Your task to perform on an android device: delete the emails in spam in the gmail app Image 0: 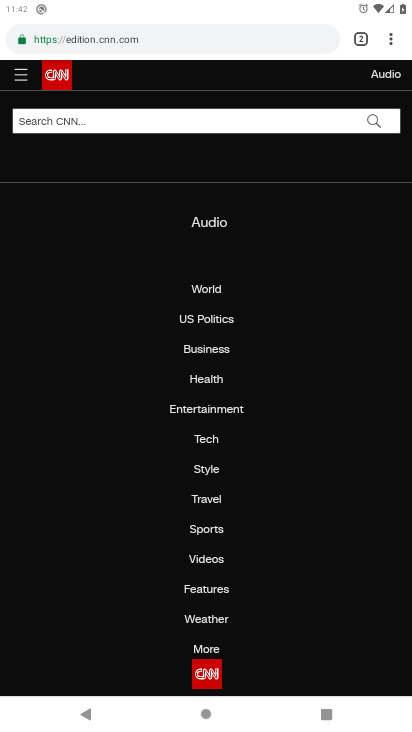
Step 0: press home button
Your task to perform on an android device: delete the emails in spam in the gmail app Image 1: 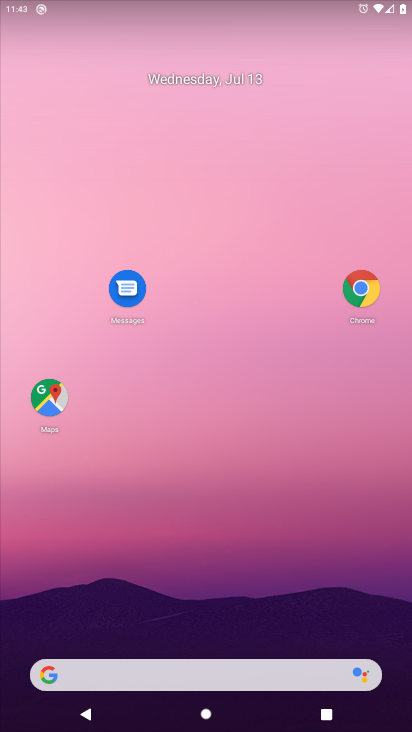
Step 1: drag from (23, 685) to (304, 4)
Your task to perform on an android device: delete the emails in spam in the gmail app Image 2: 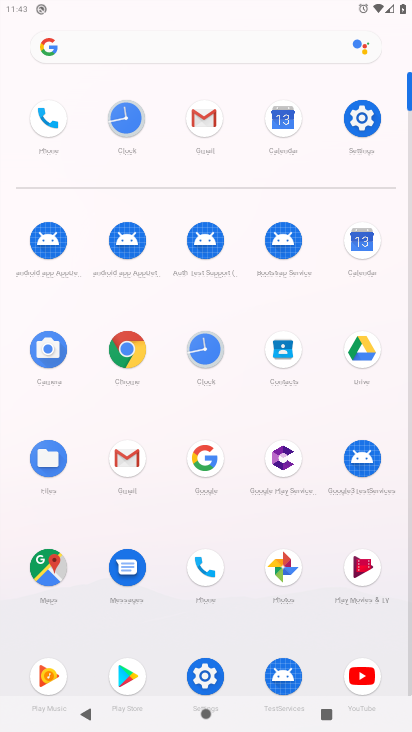
Step 2: click (118, 461)
Your task to perform on an android device: delete the emails in spam in the gmail app Image 3: 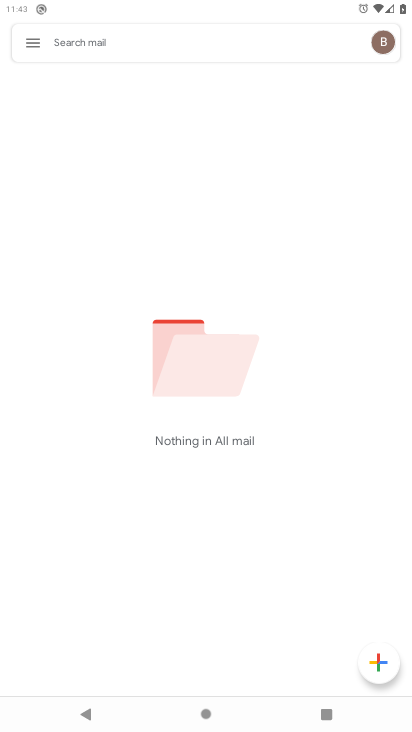
Step 3: click (27, 42)
Your task to perform on an android device: delete the emails in spam in the gmail app Image 4: 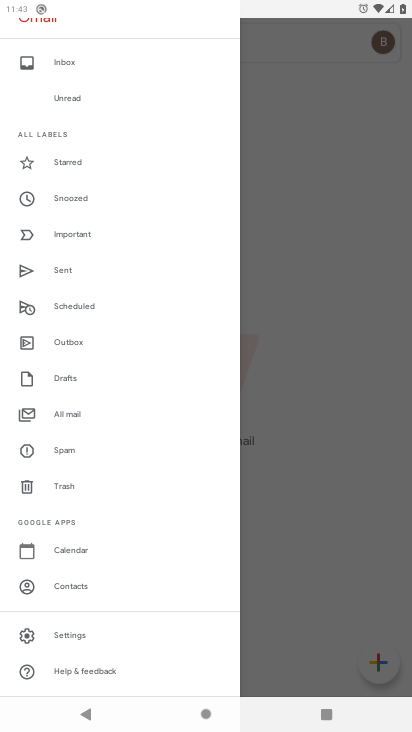
Step 4: click (67, 453)
Your task to perform on an android device: delete the emails in spam in the gmail app Image 5: 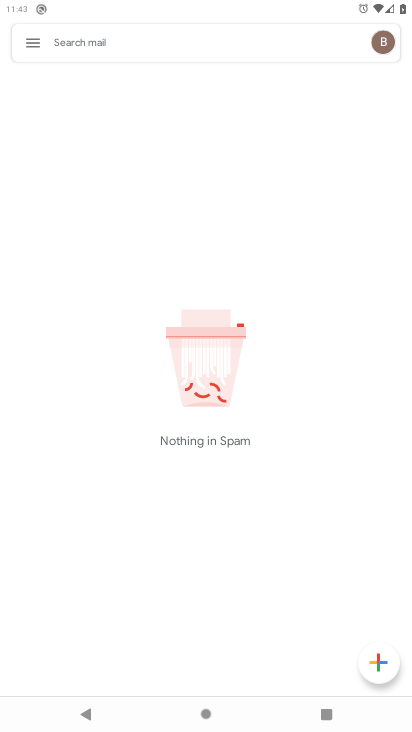
Step 5: task complete